Your task to perform on an android device: check storage Image 0: 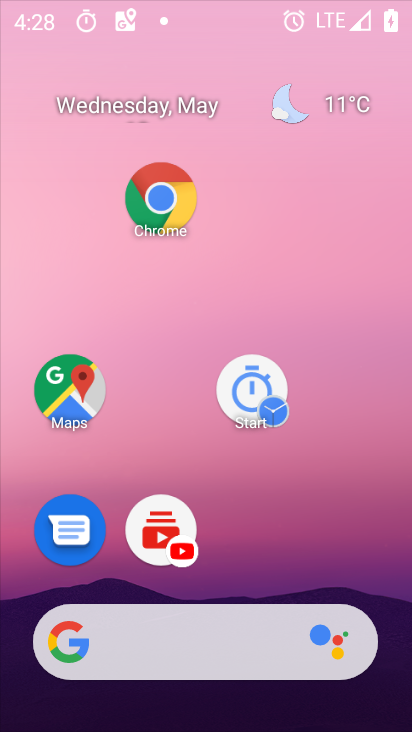
Step 0: drag from (370, 695) to (82, 61)
Your task to perform on an android device: check storage Image 1: 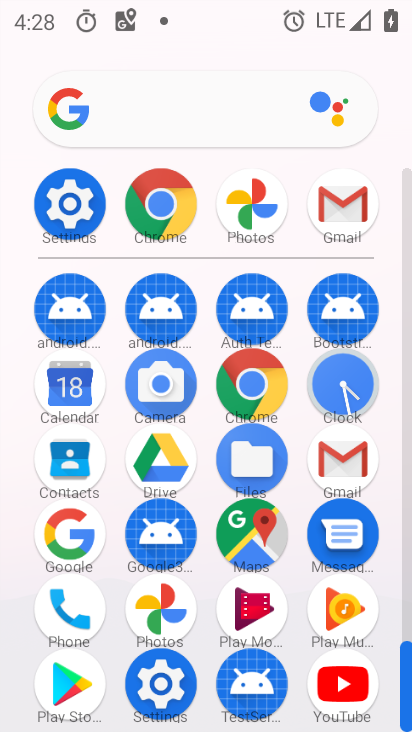
Step 1: click (66, 206)
Your task to perform on an android device: check storage Image 2: 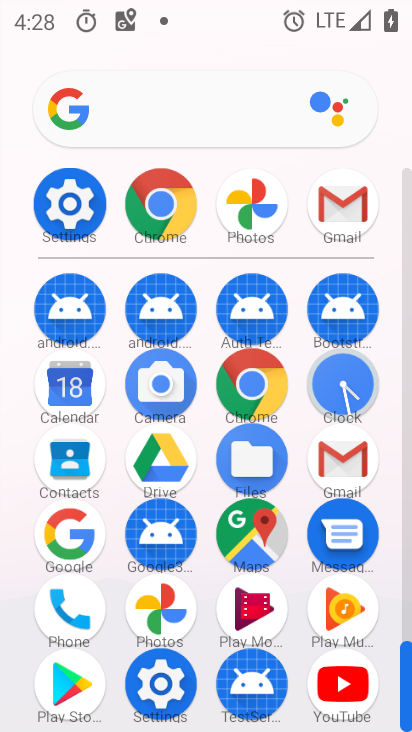
Step 2: click (66, 208)
Your task to perform on an android device: check storage Image 3: 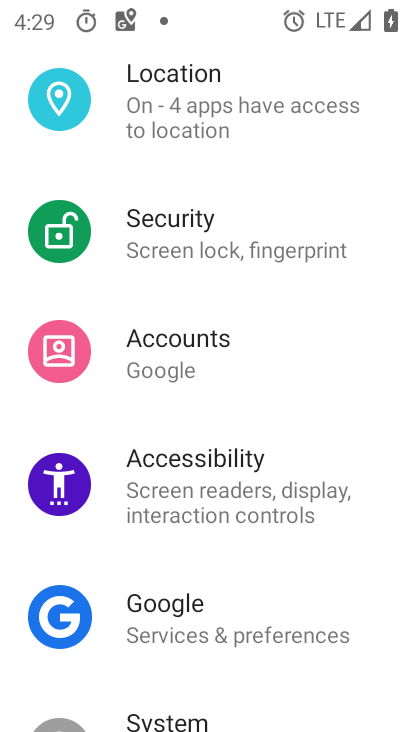
Step 3: drag from (202, 436) to (195, 242)
Your task to perform on an android device: check storage Image 4: 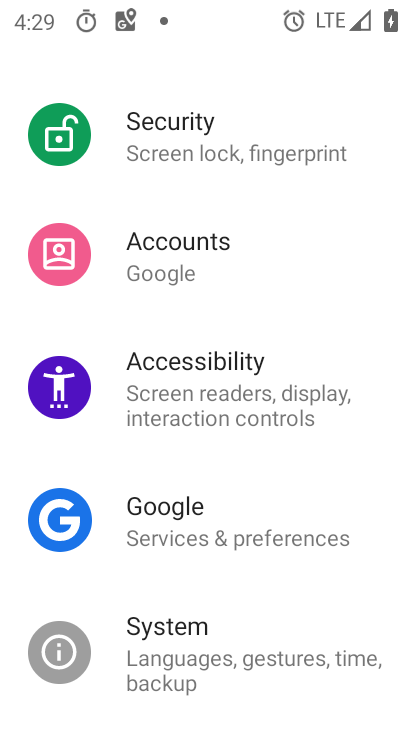
Step 4: drag from (214, 456) to (214, 155)
Your task to perform on an android device: check storage Image 5: 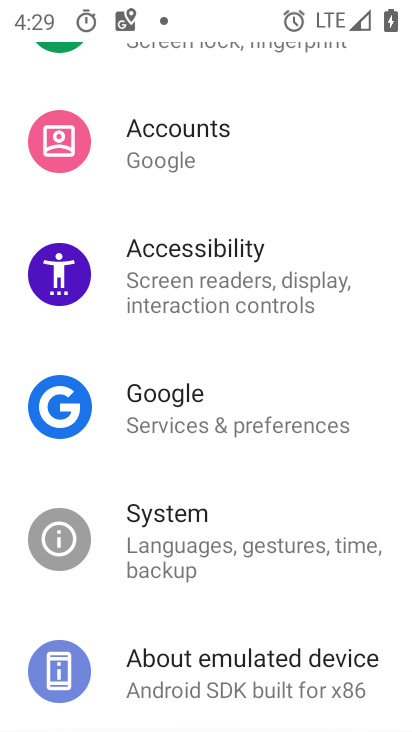
Step 5: drag from (239, 546) to (186, 84)
Your task to perform on an android device: check storage Image 6: 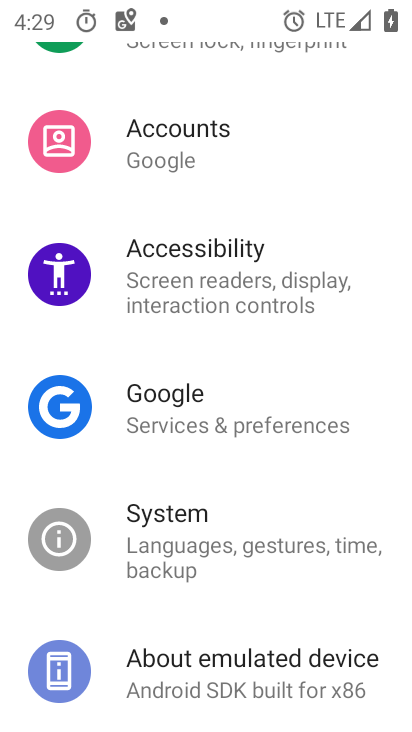
Step 6: drag from (150, 185) to (213, 599)
Your task to perform on an android device: check storage Image 7: 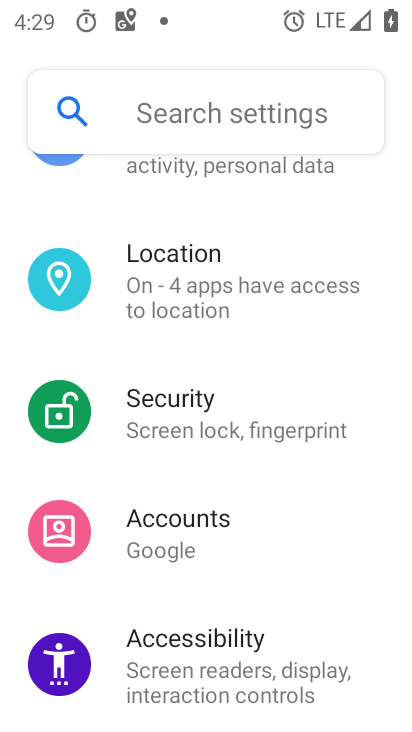
Step 7: drag from (211, 255) to (273, 691)
Your task to perform on an android device: check storage Image 8: 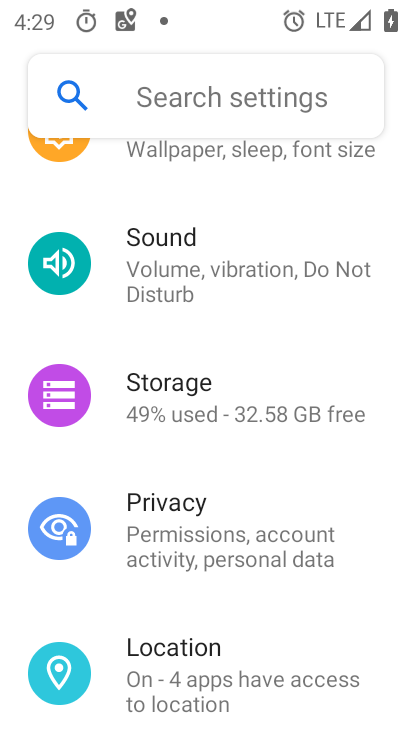
Step 8: drag from (188, 305) to (193, 704)
Your task to perform on an android device: check storage Image 9: 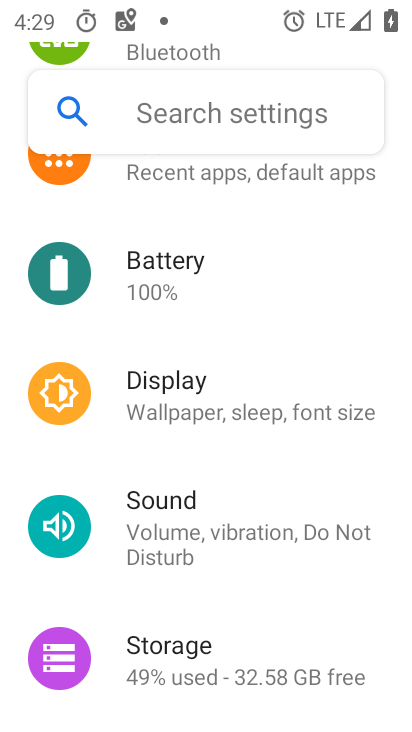
Step 9: click (166, 653)
Your task to perform on an android device: check storage Image 10: 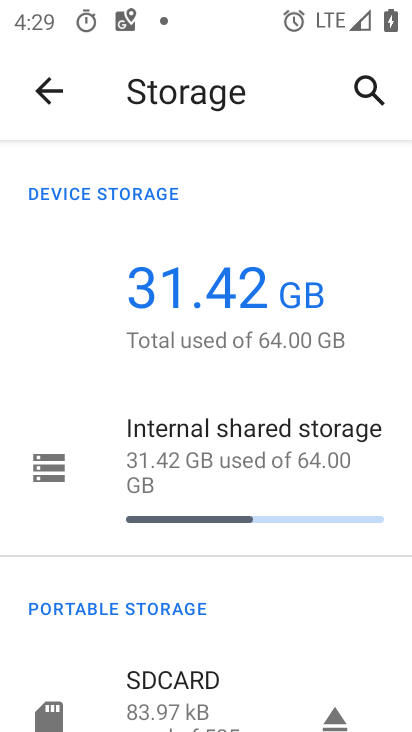
Step 10: task complete